Your task to perform on an android device: Search for vegetarian restaurants on Maps Image 0: 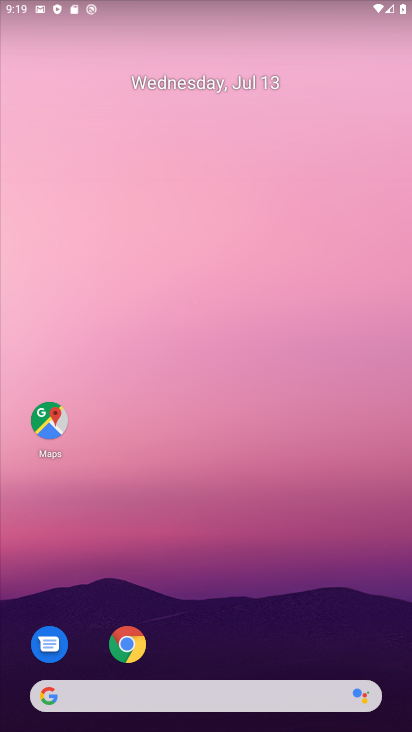
Step 0: drag from (194, 672) to (309, 125)
Your task to perform on an android device: Search for vegetarian restaurants on Maps Image 1: 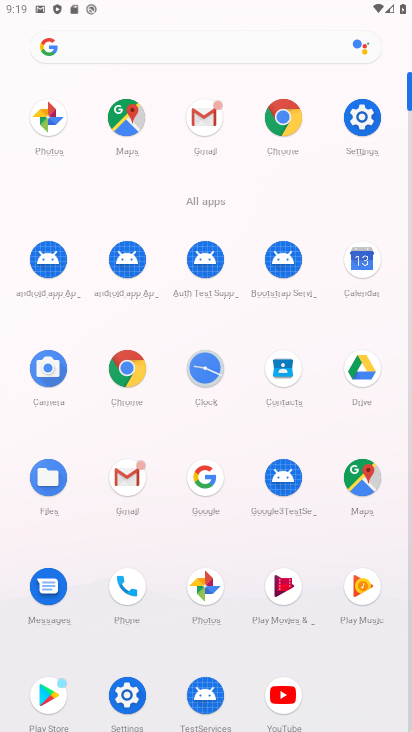
Step 1: click (366, 474)
Your task to perform on an android device: Search for vegetarian restaurants on Maps Image 2: 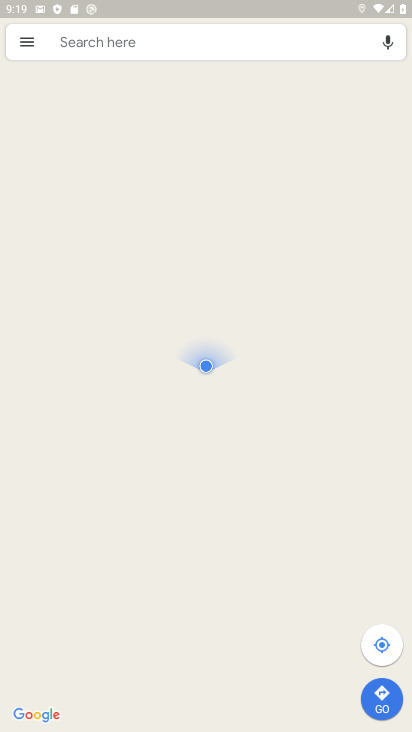
Step 2: click (166, 39)
Your task to perform on an android device: Search for vegetarian restaurants on Maps Image 3: 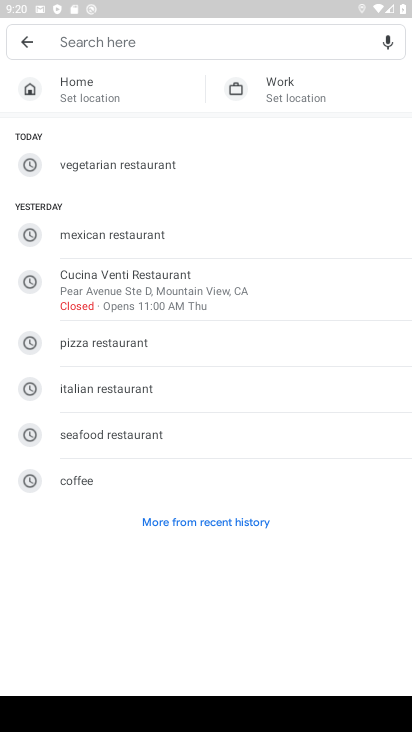
Step 3: type "vegetarian restaurants"
Your task to perform on an android device: Search for vegetarian restaurants on Maps Image 4: 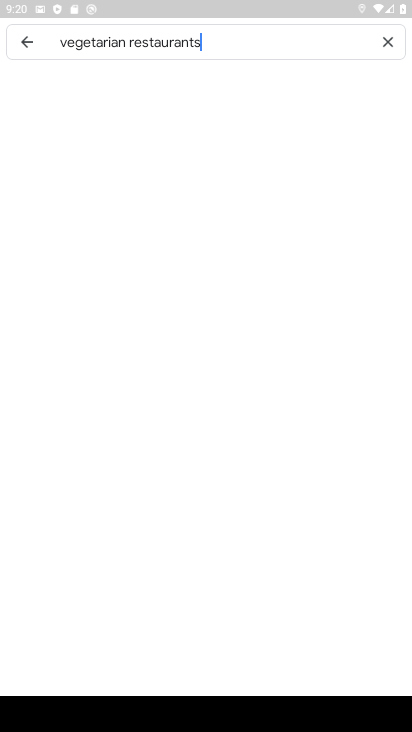
Step 4: press enter
Your task to perform on an android device: Search for vegetarian restaurants on Maps Image 5: 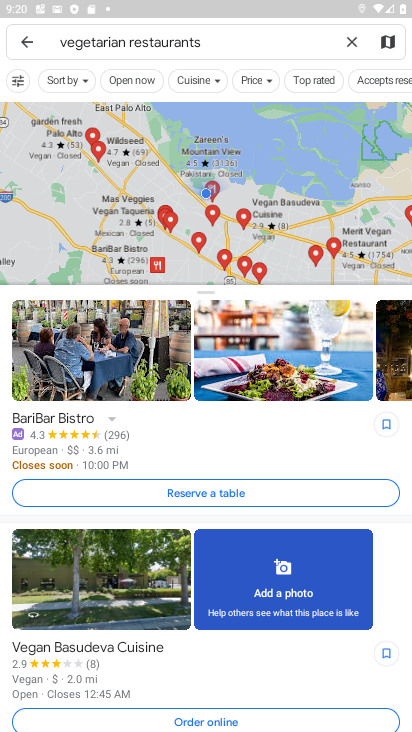
Step 5: task complete